Your task to perform on an android device: toggle notification dots Image 0: 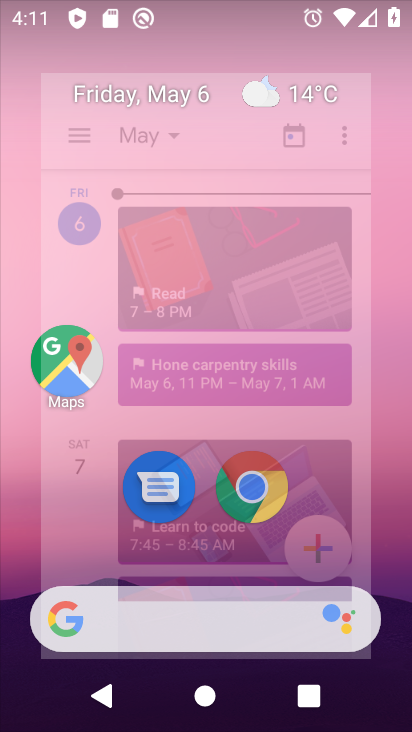
Step 0: drag from (211, 563) to (196, 372)
Your task to perform on an android device: toggle notification dots Image 1: 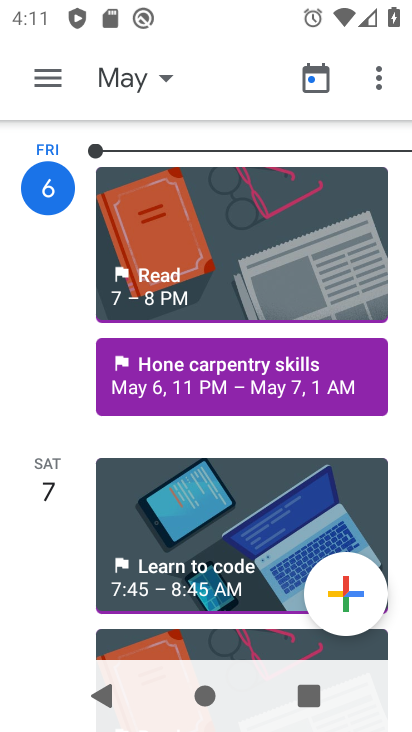
Step 1: press home button
Your task to perform on an android device: toggle notification dots Image 2: 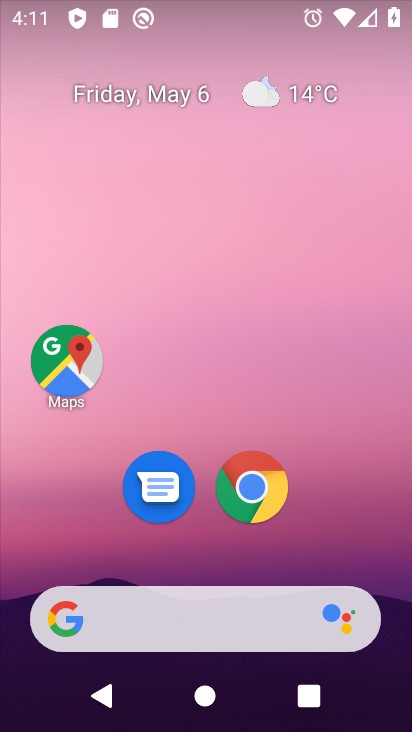
Step 2: drag from (232, 558) to (283, 28)
Your task to perform on an android device: toggle notification dots Image 3: 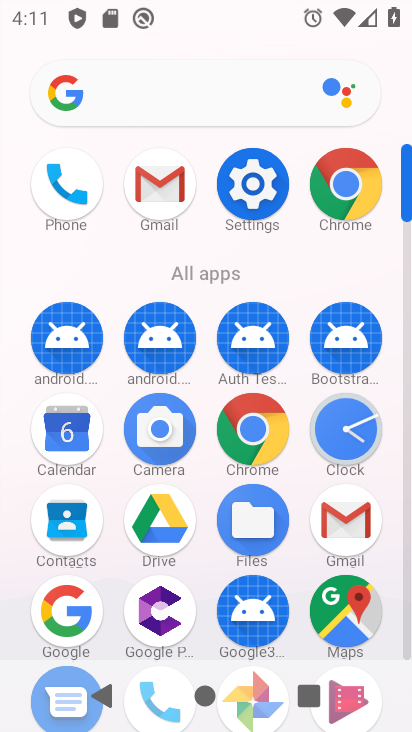
Step 3: click (274, 182)
Your task to perform on an android device: toggle notification dots Image 4: 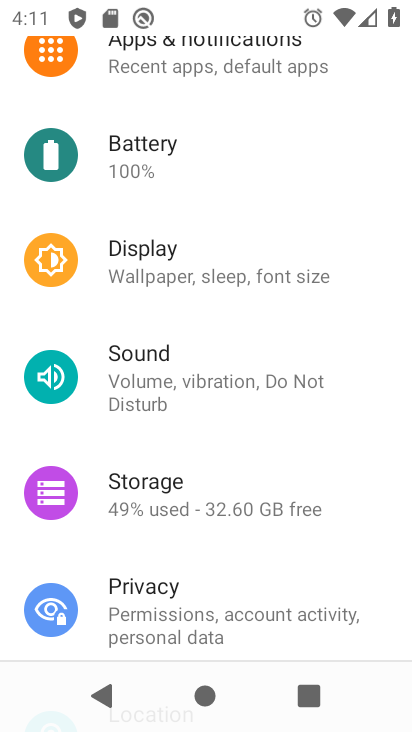
Step 4: click (192, 70)
Your task to perform on an android device: toggle notification dots Image 5: 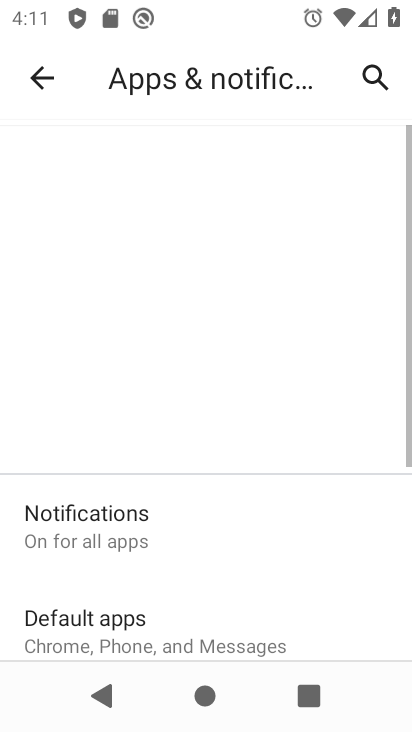
Step 5: click (111, 523)
Your task to perform on an android device: toggle notification dots Image 6: 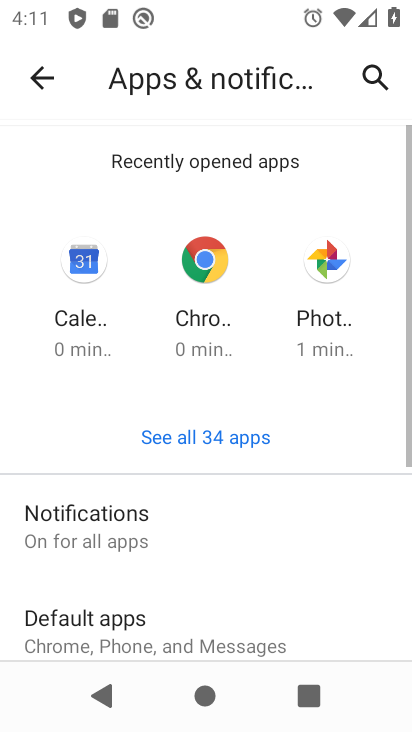
Step 6: drag from (170, 568) to (156, 33)
Your task to perform on an android device: toggle notification dots Image 7: 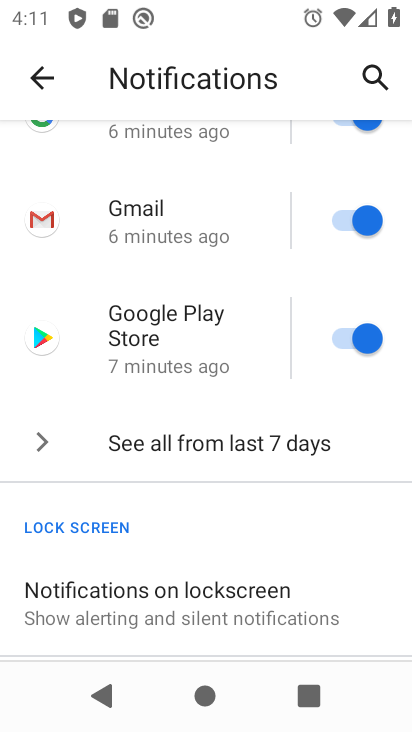
Step 7: drag from (224, 602) to (168, 31)
Your task to perform on an android device: toggle notification dots Image 8: 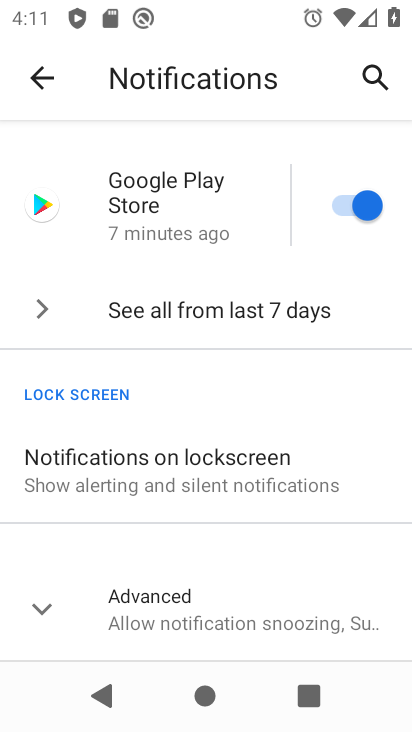
Step 8: click (190, 613)
Your task to perform on an android device: toggle notification dots Image 9: 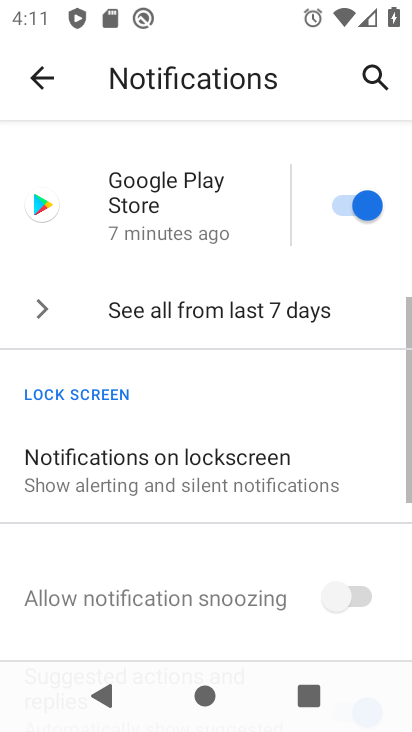
Step 9: drag from (190, 613) to (174, 91)
Your task to perform on an android device: toggle notification dots Image 10: 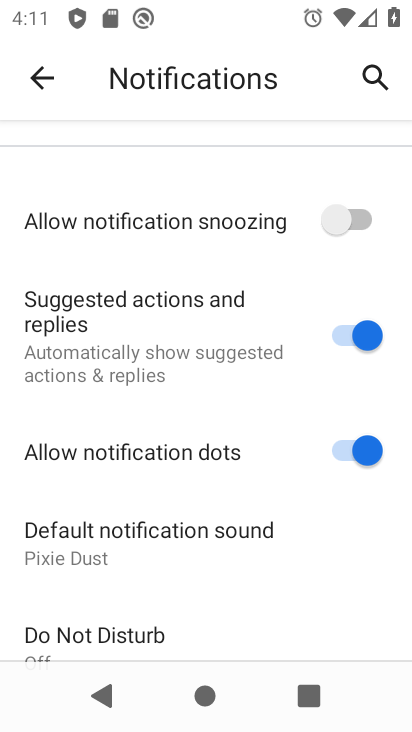
Step 10: click (337, 447)
Your task to perform on an android device: toggle notification dots Image 11: 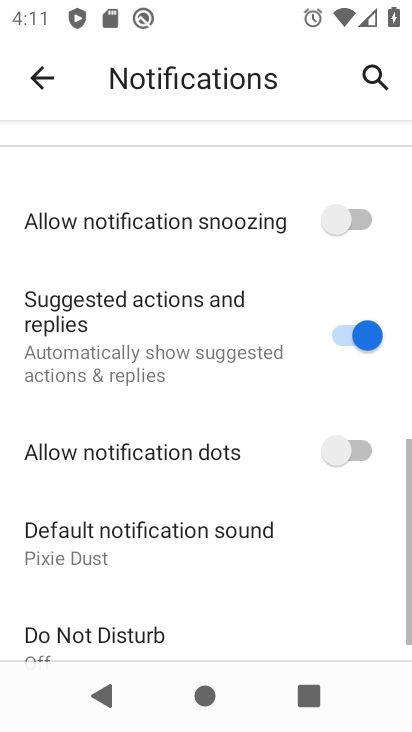
Step 11: task complete